Your task to perform on an android device: check storage Image 0: 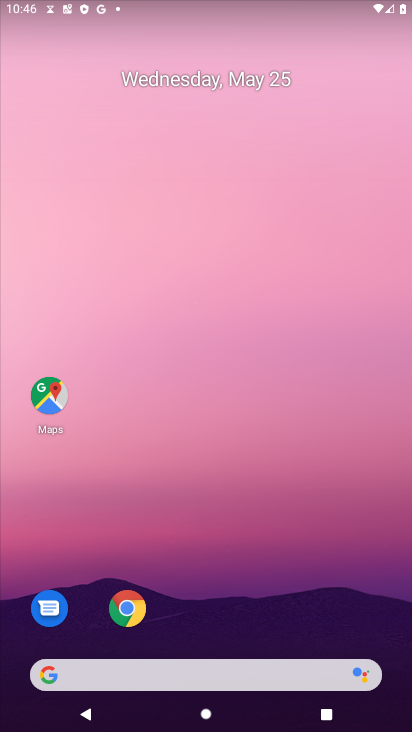
Step 0: drag from (239, 616) to (304, 13)
Your task to perform on an android device: check storage Image 1: 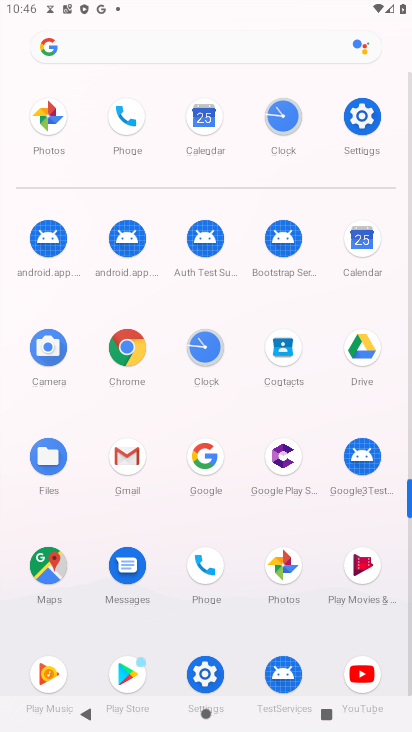
Step 1: click (361, 146)
Your task to perform on an android device: check storage Image 2: 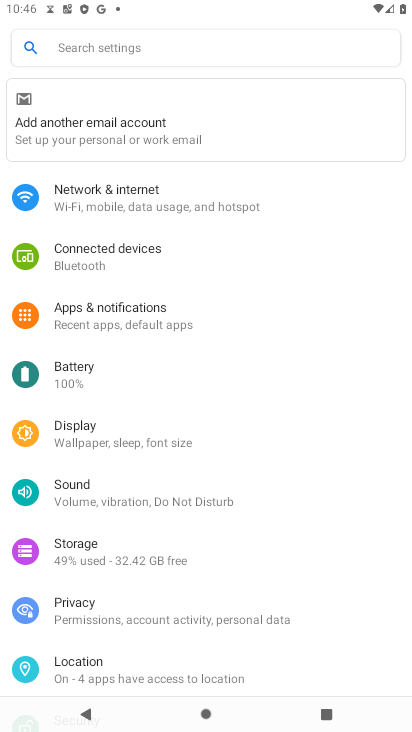
Step 2: click (52, 547)
Your task to perform on an android device: check storage Image 3: 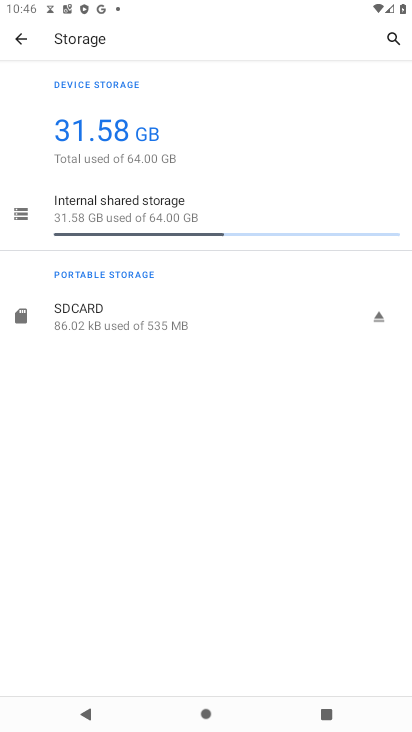
Step 3: click (121, 187)
Your task to perform on an android device: check storage Image 4: 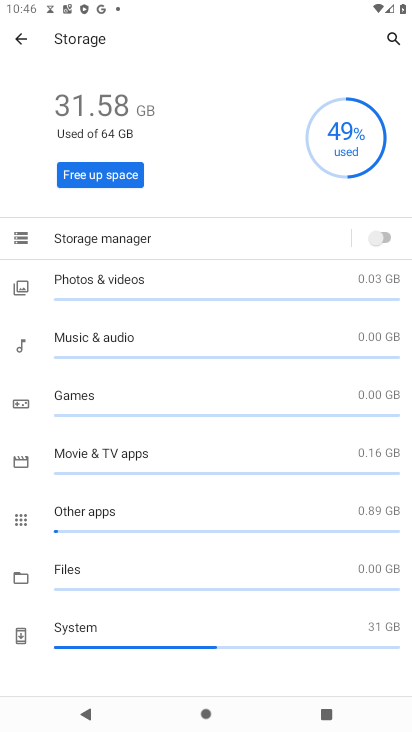
Step 4: task complete